Your task to perform on an android device: make emails show in primary in the gmail app Image 0: 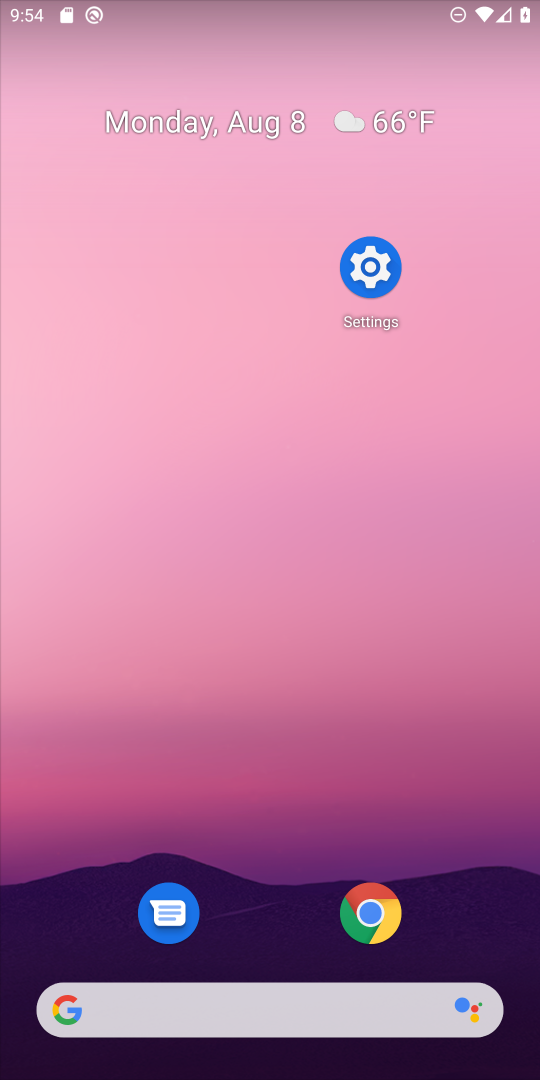
Step 0: drag from (195, 1016) to (340, 340)
Your task to perform on an android device: make emails show in primary in the gmail app Image 1: 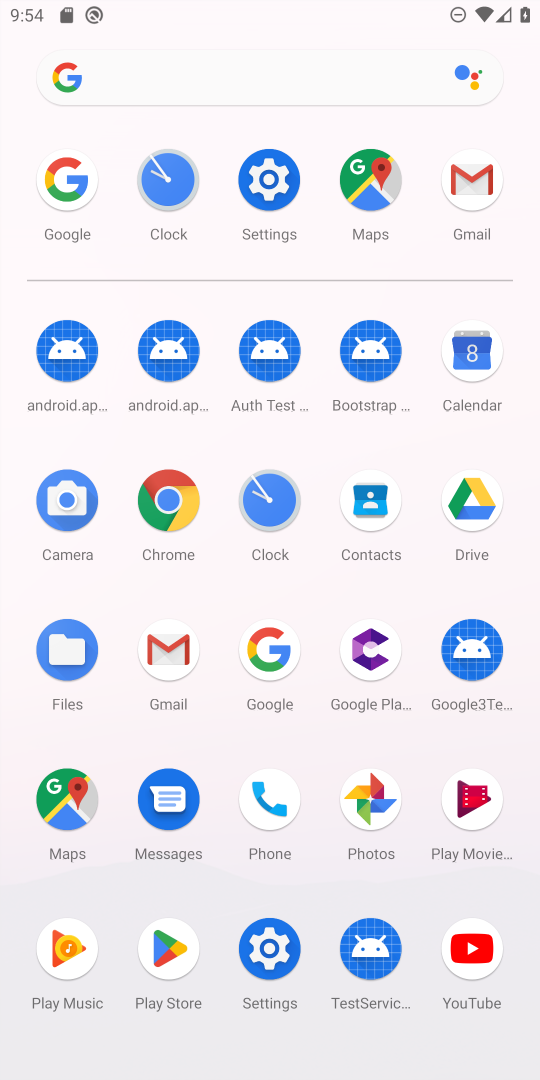
Step 1: click (469, 175)
Your task to perform on an android device: make emails show in primary in the gmail app Image 2: 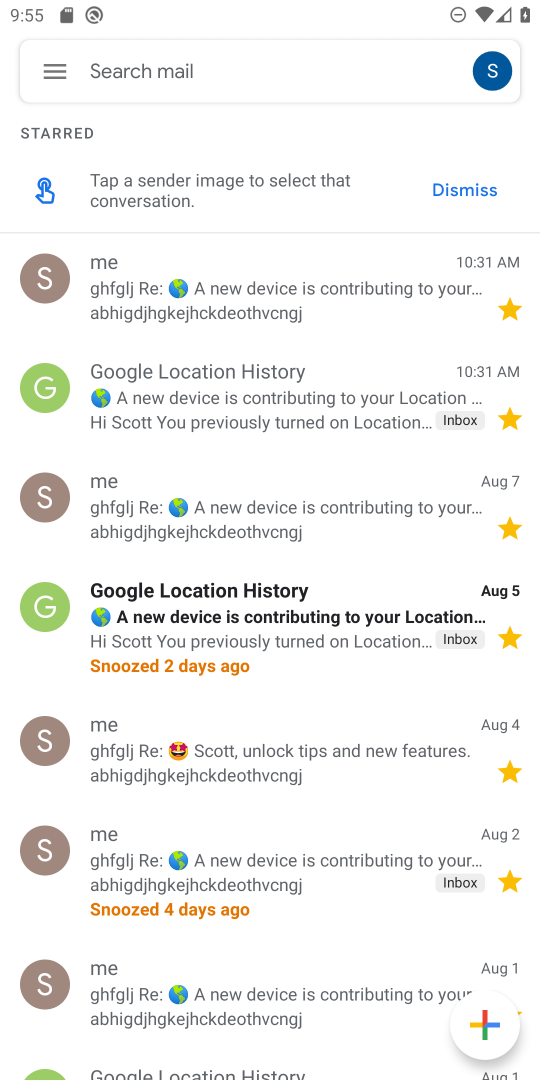
Step 2: click (70, 73)
Your task to perform on an android device: make emails show in primary in the gmail app Image 3: 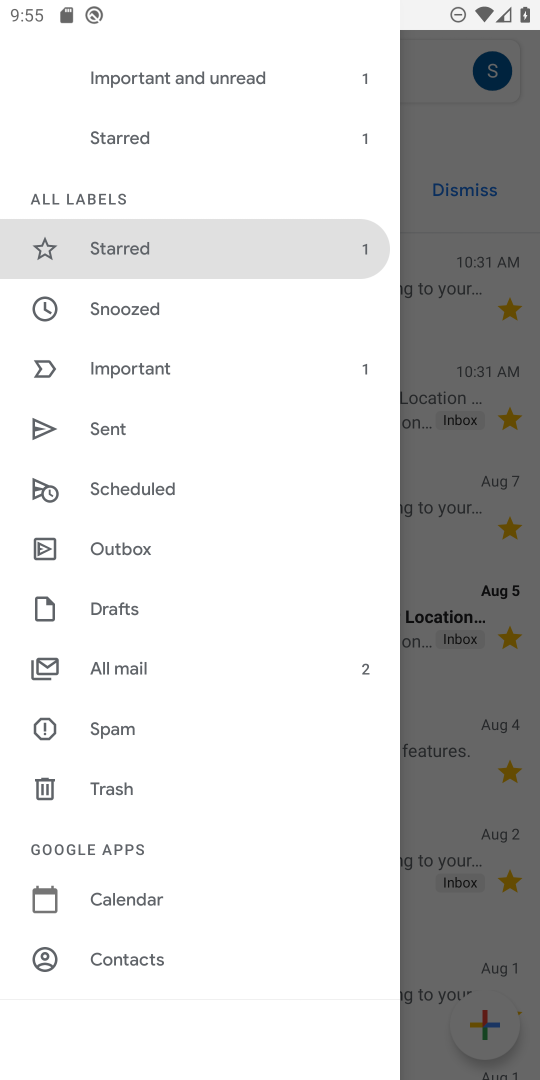
Step 3: drag from (172, 173) to (100, 533)
Your task to perform on an android device: make emails show in primary in the gmail app Image 4: 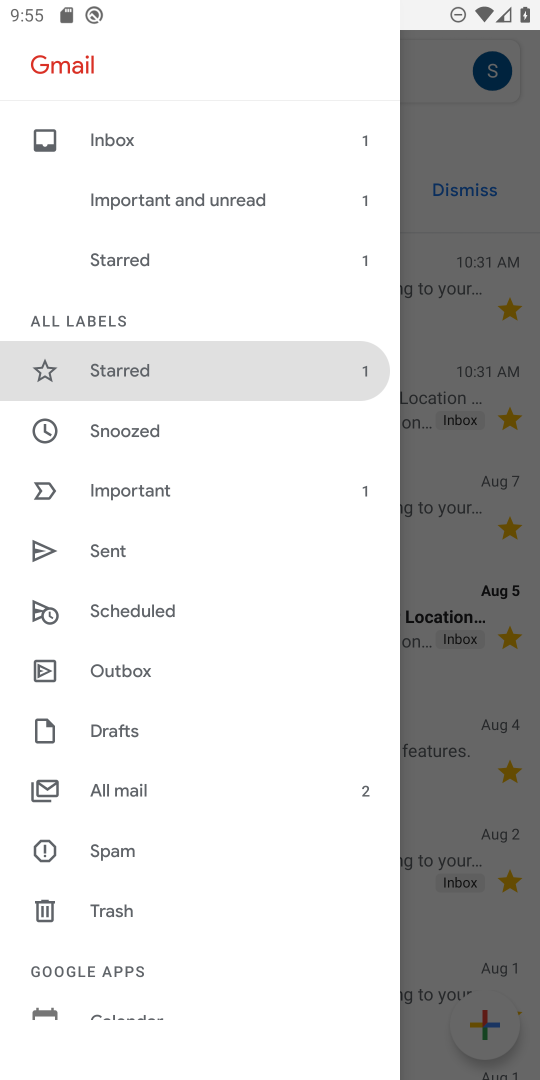
Step 4: drag from (143, 901) to (323, 427)
Your task to perform on an android device: make emails show in primary in the gmail app Image 5: 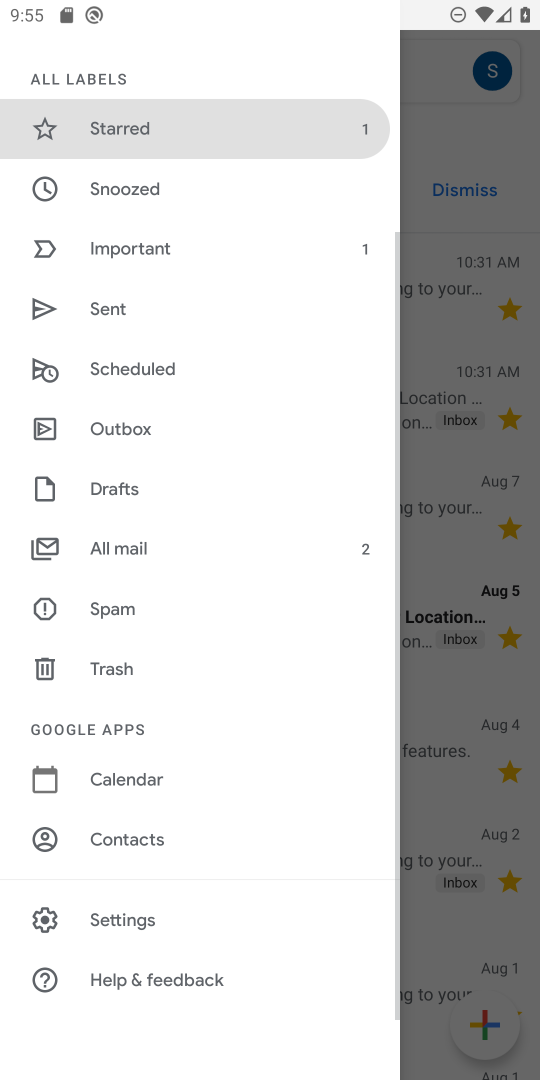
Step 5: click (144, 932)
Your task to perform on an android device: make emails show in primary in the gmail app Image 6: 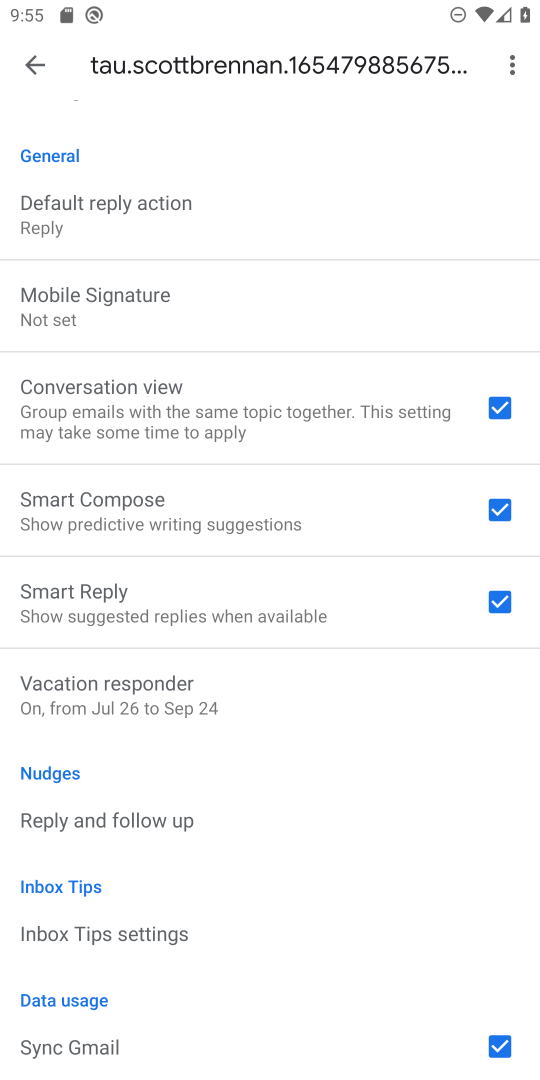
Step 6: drag from (198, 236) to (138, 594)
Your task to perform on an android device: make emails show in primary in the gmail app Image 7: 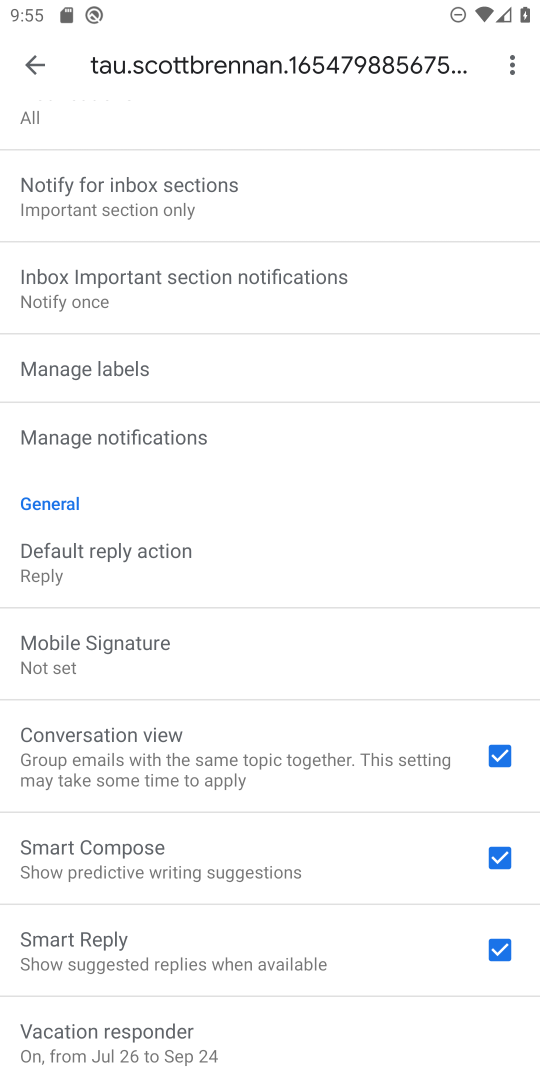
Step 7: drag from (176, 139) to (155, 521)
Your task to perform on an android device: make emails show in primary in the gmail app Image 8: 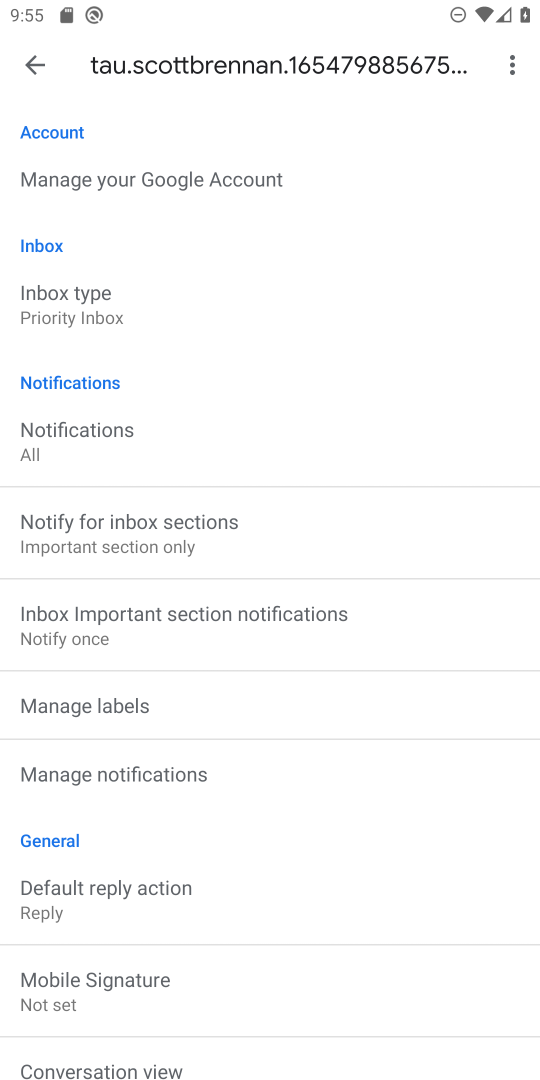
Step 8: click (113, 315)
Your task to perform on an android device: make emails show in primary in the gmail app Image 9: 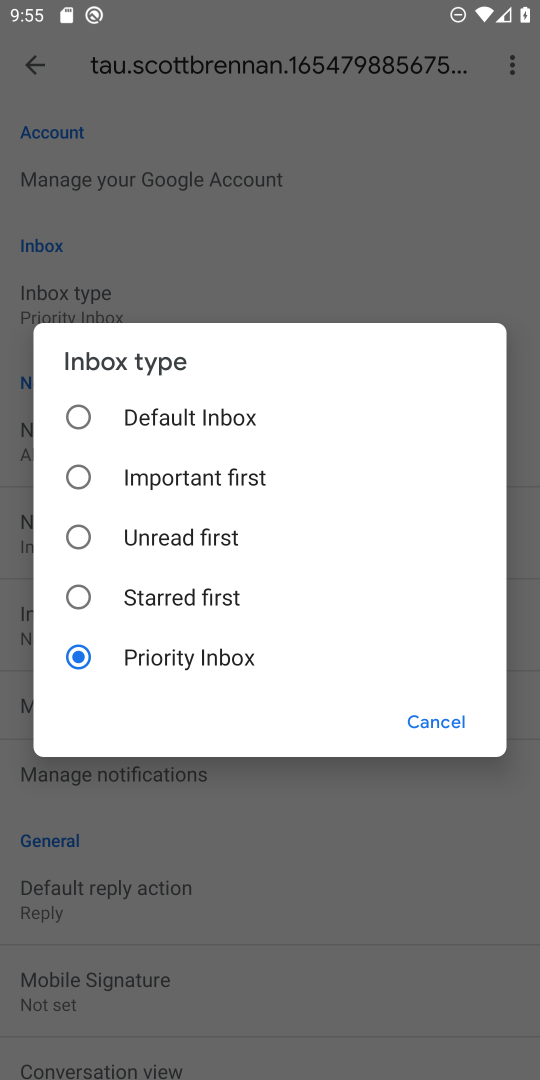
Step 9: click (73, 417)
Your task to perform on an android device: make emails show in primary in the gmail app Image 10: 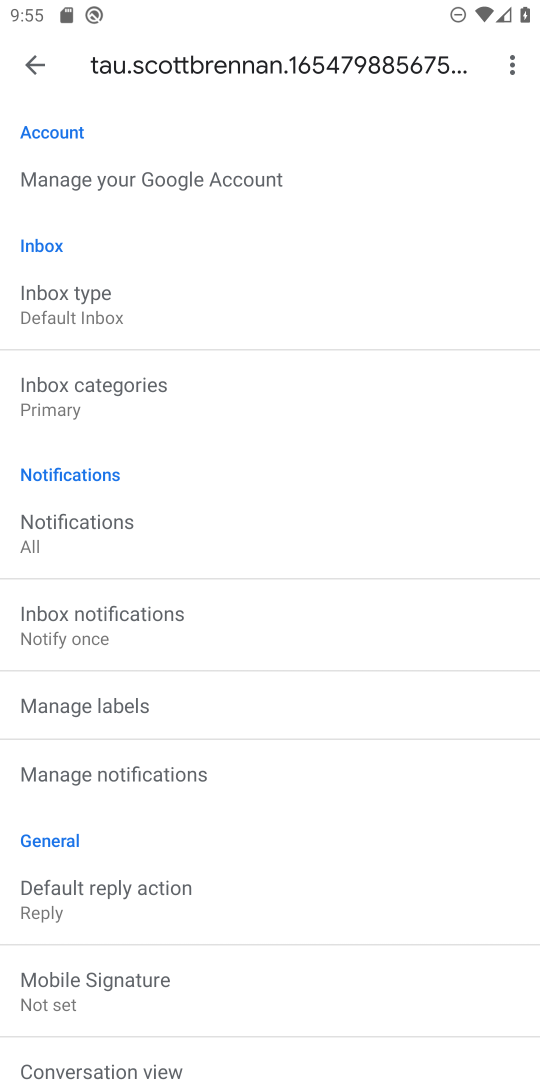
Step 10: task complete